Your task to perform on an android device: turn off location Image 0: 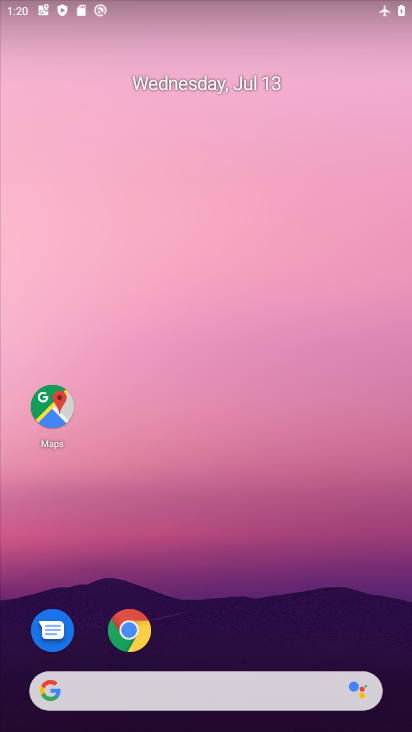
Step 0: click (310, 113)
Your task to perform on an android device: turn off location Image 1: 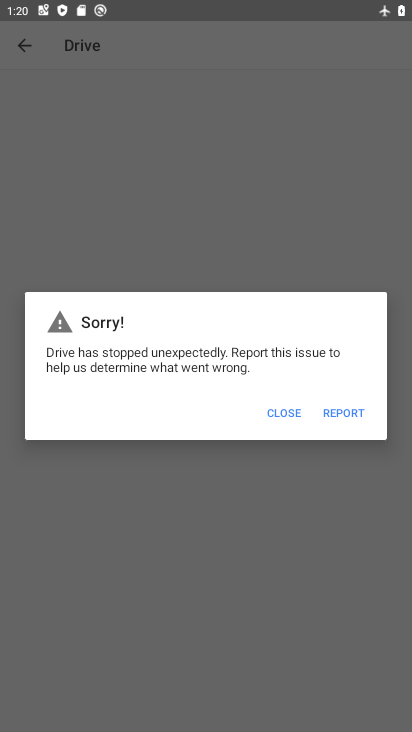
Step 1: press home button
Your task to perform on an android device: turn off location Image 2: 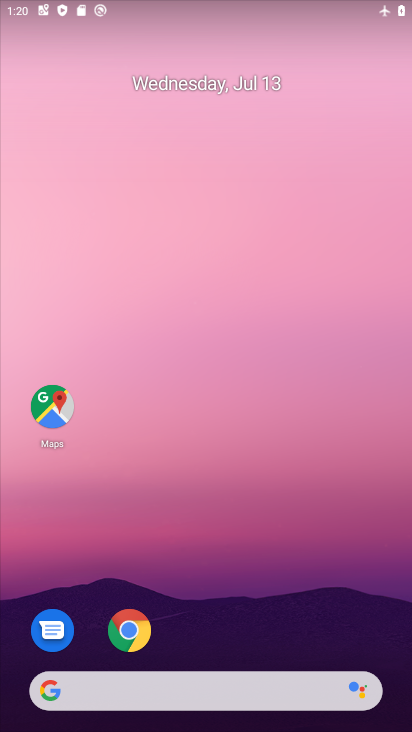
Step 2: drag from (355, 636) to (366, 91)
Your task to perform on an android device: turn off location Image 3: 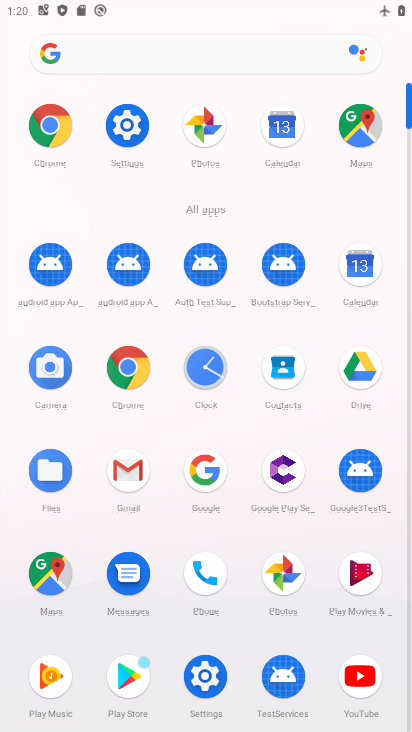
Step 3: click (129, 135)
Your task to perform on an android device: turn off location Image 4: 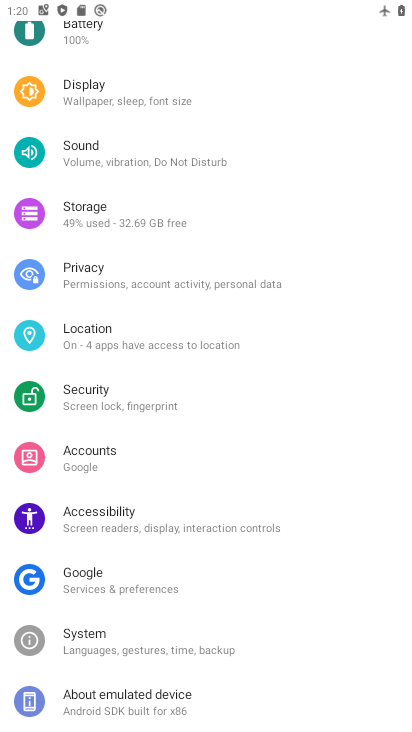
Step 4: drag from (319, 229) to (302, 398)
Your task to perform on an android device: turn off location Image 5: 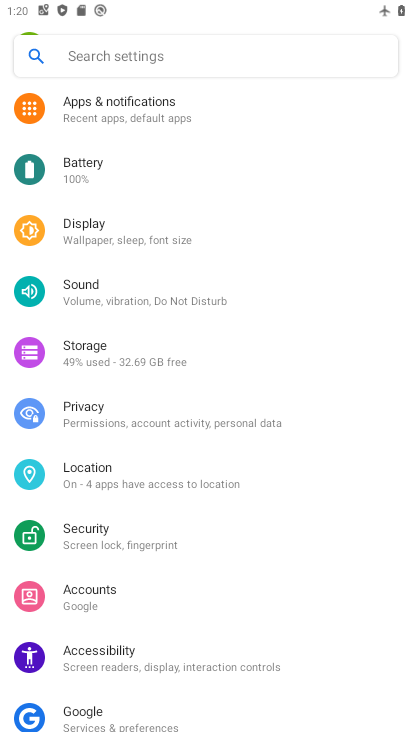
Step 5: drag from (327, 227) to (314, 456)
Your task to perform on an android device: turn off location Image 6: 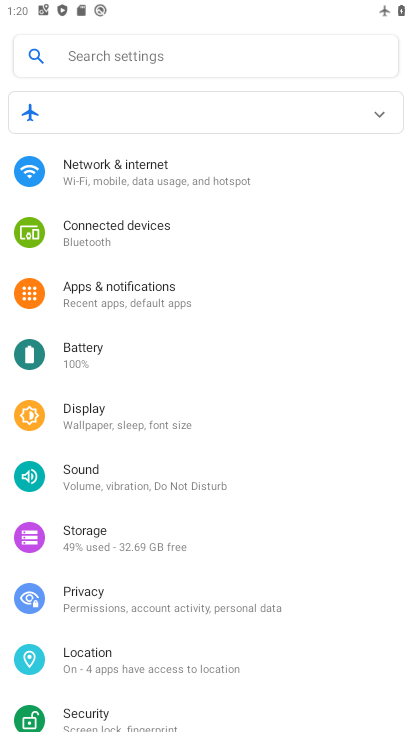
Step 6: drag from (332, 375) to (337, 570)
Your task to perform on an android device: turn off location Image 7: 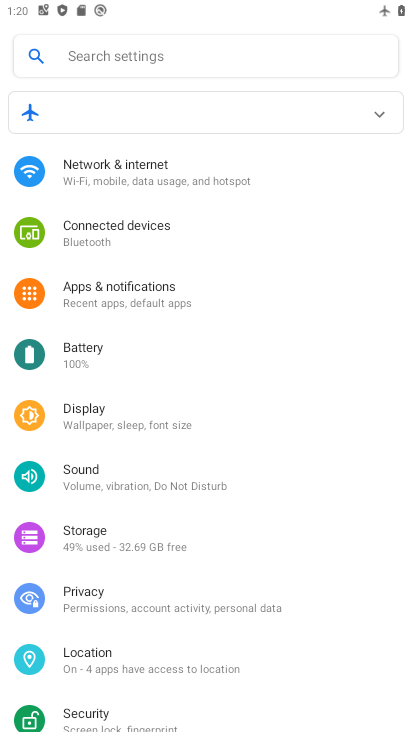
Step 7: click (213, 667)
Your task to perform on an android device: turn off location Image 8: 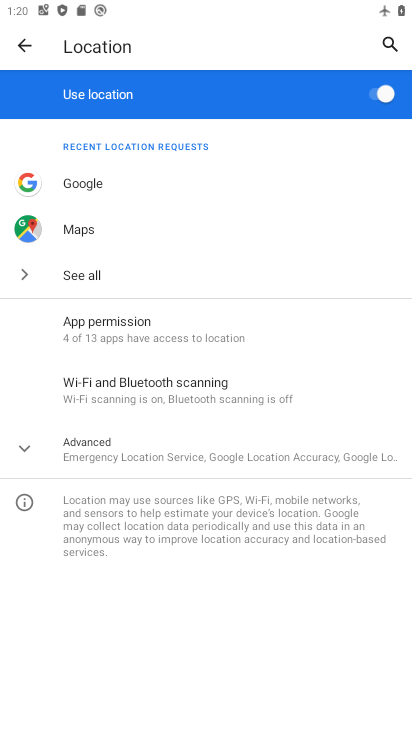
Step 8: click (371, 92)
Your task to perform on an android device: turn off location Image 9: 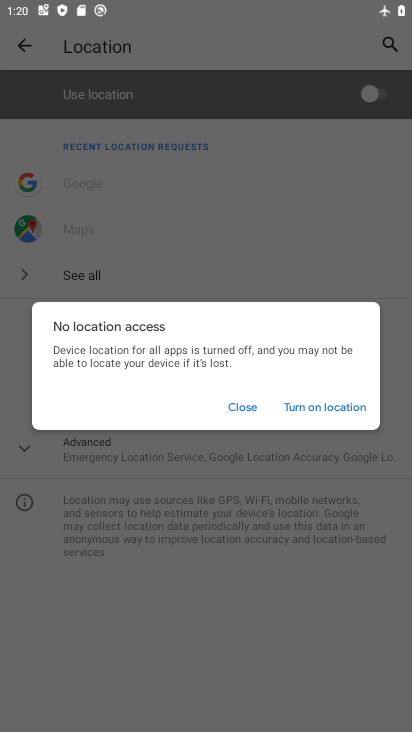
Step 9: task complete